Your task to perform on an android device: Open my contact list Image 0: 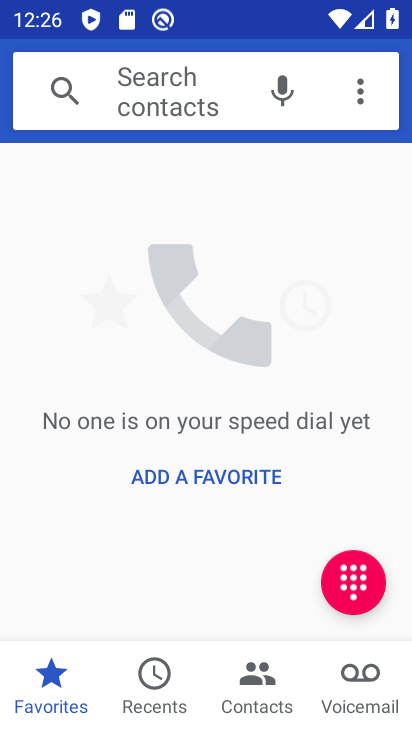
Step 0: press home button
Your task to perform on an android device: Open my contact list Image 1: 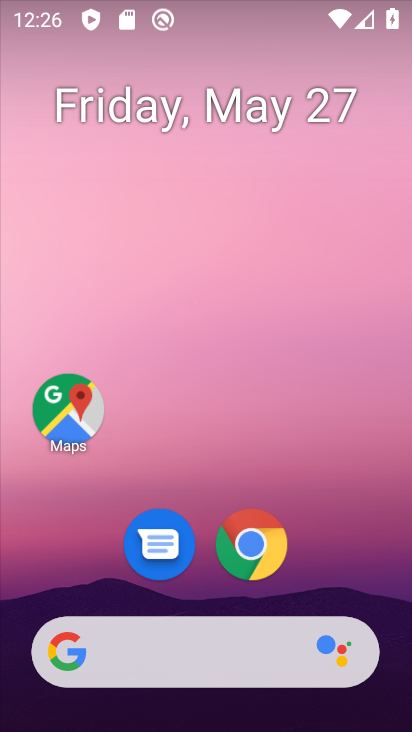
Step 1: drag from (309, 507) to (142, 47)
Your task to perform on an android device: Open my contact list Image 2: 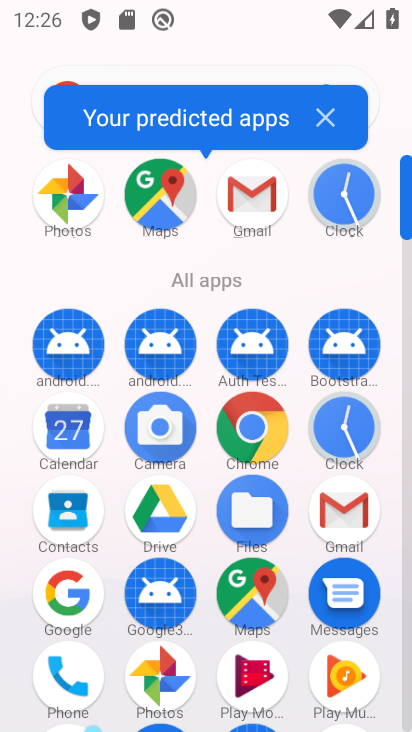
Step 2: click (62, 514)
Your task to perform on an android device: Open my contact list Image 3: 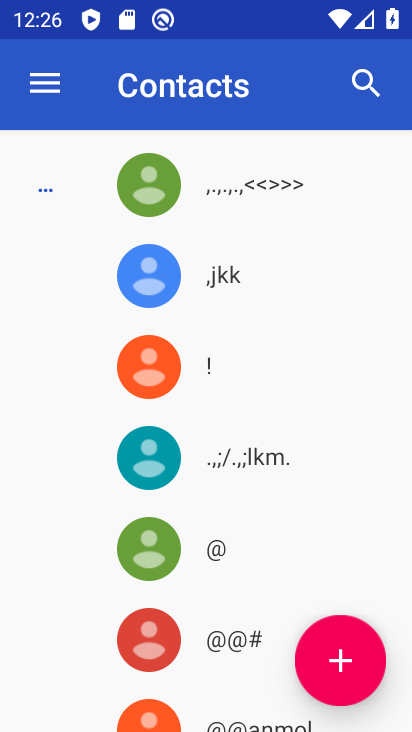
Step 3: task complete